Your task to perform on an android device: open device folders in google photos Image 0: 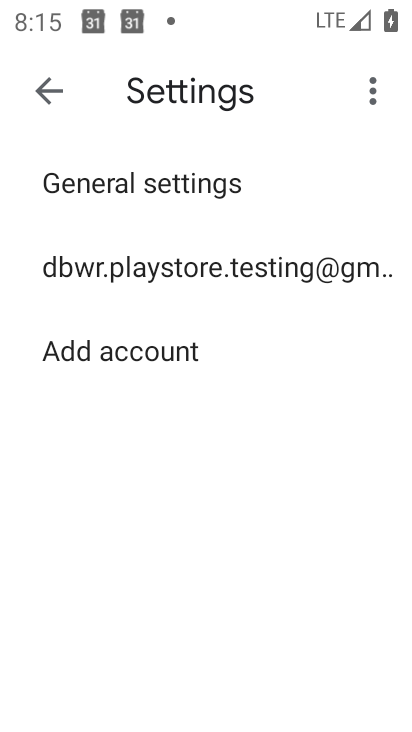
Step 0: press back button
Your task to perform on an android device: open device folders in google photos Image 1: 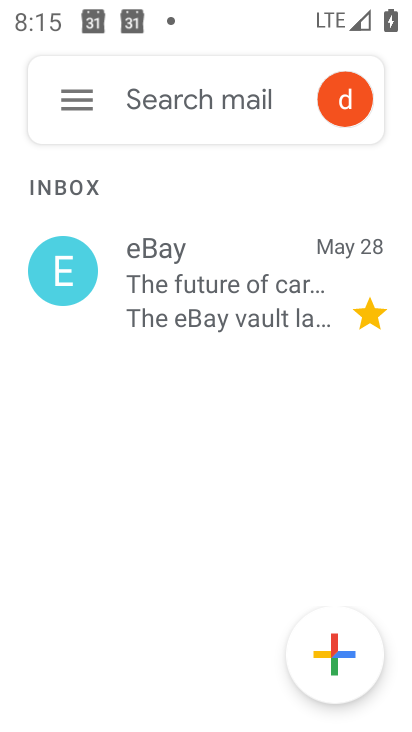
Step 1: press home button
Your task to perform on an android device: open device folders in google photos Image 2: 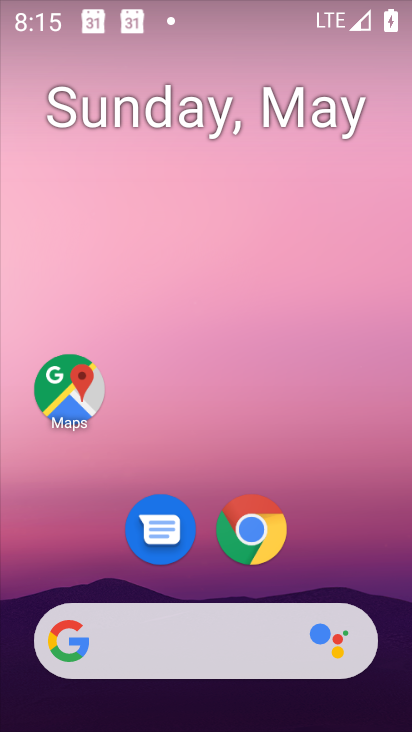
Step 2: drag from (174, 544) to (250, 70)
Your task to perform on an android device: open device folders in google photos Image 3: 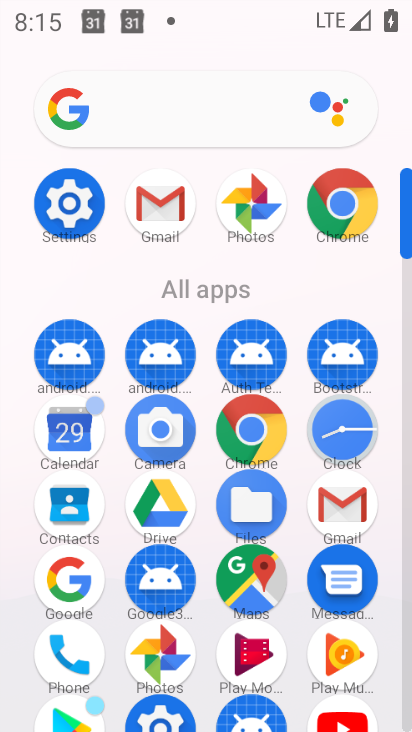
Step 3: click (162, 675)
Your task to perform on an android device: open device folders in google photos Image 4: 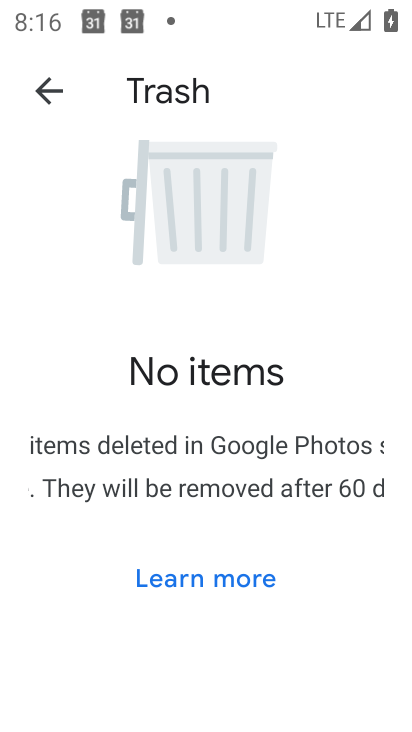
Step 4: click (43, 86)
Your task to perform on an android device: open device folders in google photos Image 5: 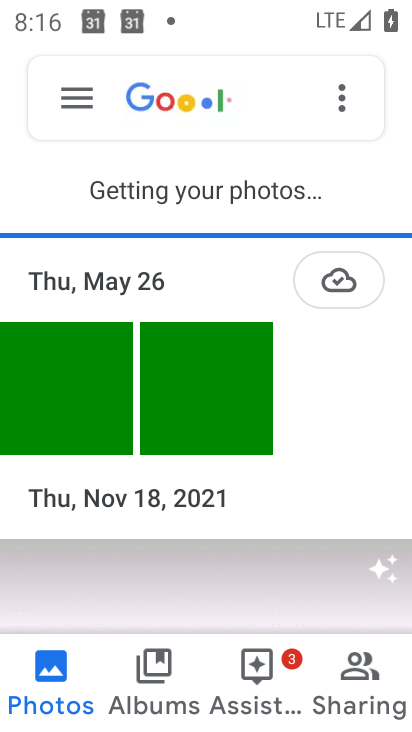
Step 5: click (54, 95)
Your task to perform on an android device: open device folders in google photos Image 6: 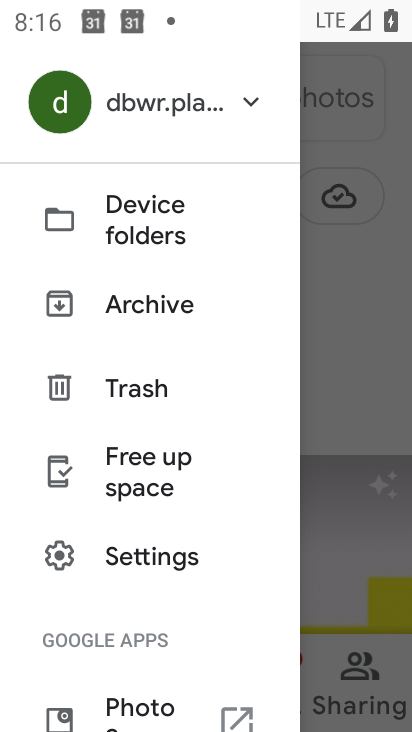
Step 6: click (124, 201)
Your task to perform on an android device: open device folders in google photos Image 7: 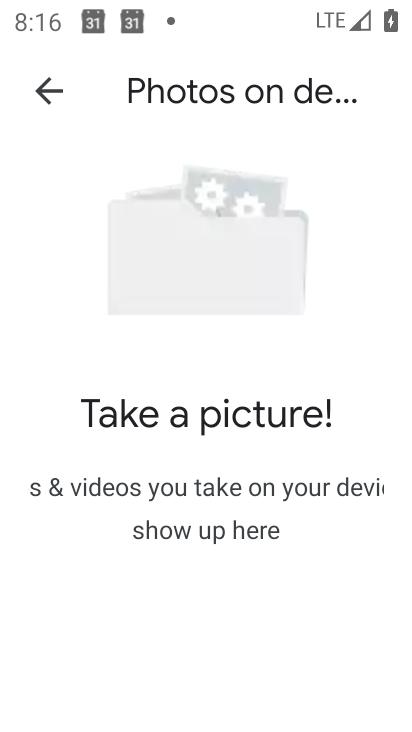
Step 7: task complete